Your task to perform on an android device: turn pop-ups on in chrome Image 0: 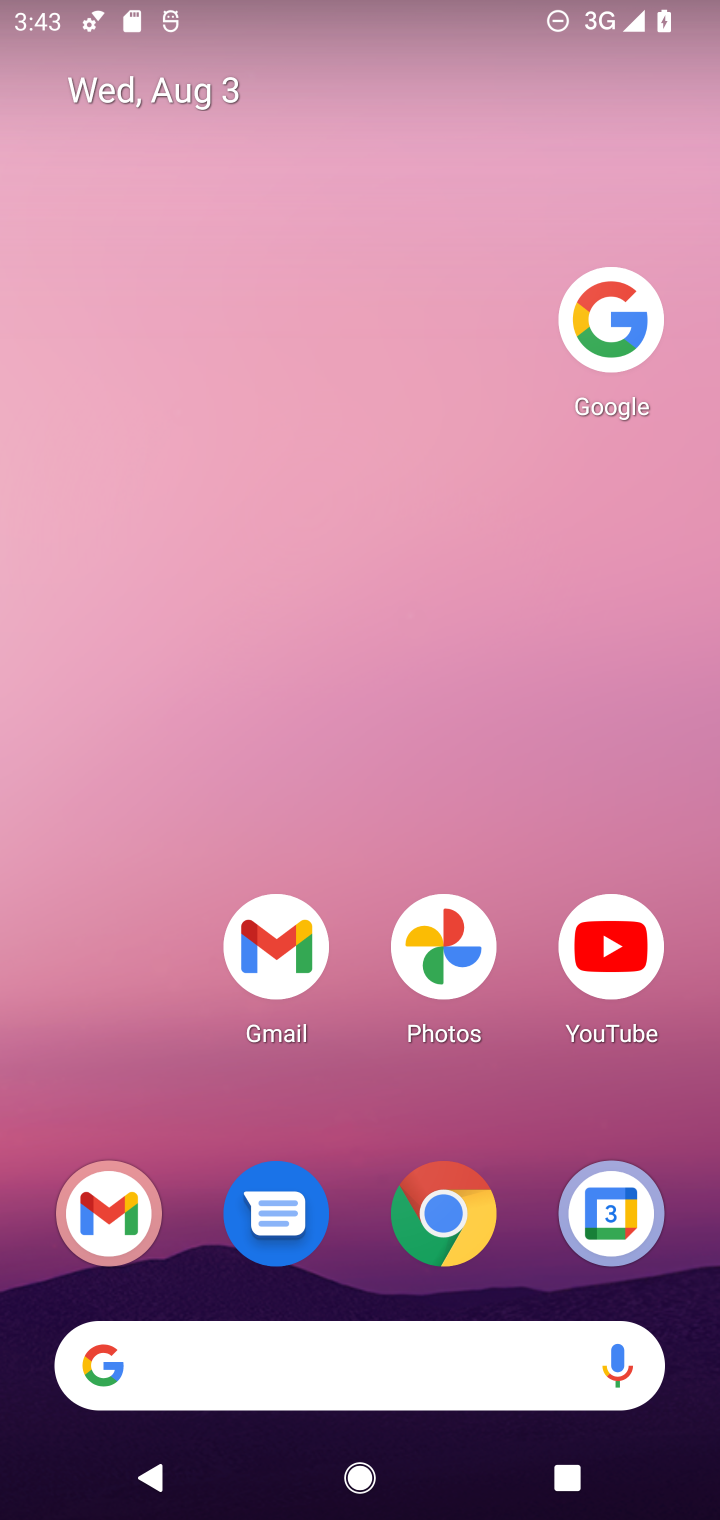
Step 0: click (416, 1228)
Your task to perform on an android device: turn pop-ups on in chrome Image 1: 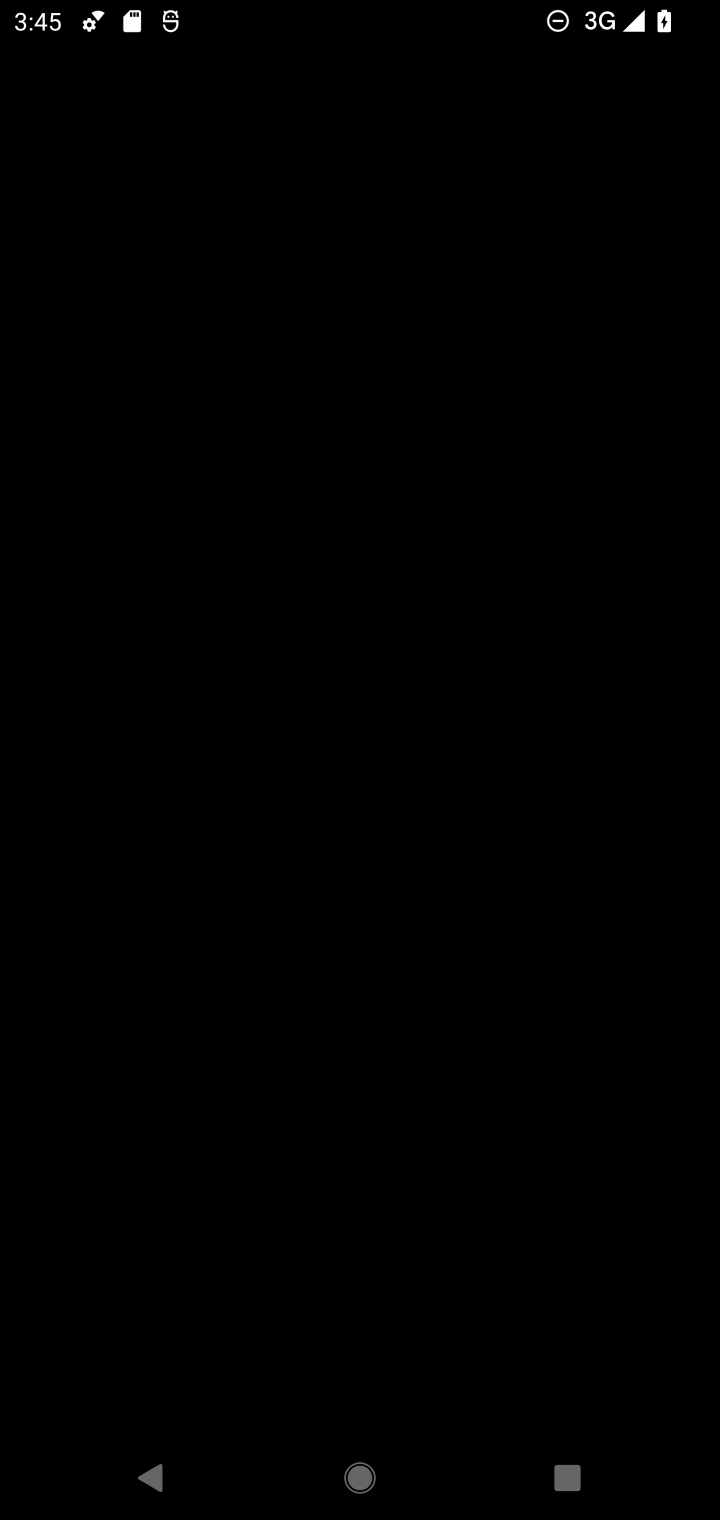
Step 1: task complete